Your task to perform on an android device: remove spam from my inbox in the gmail app Image 0: 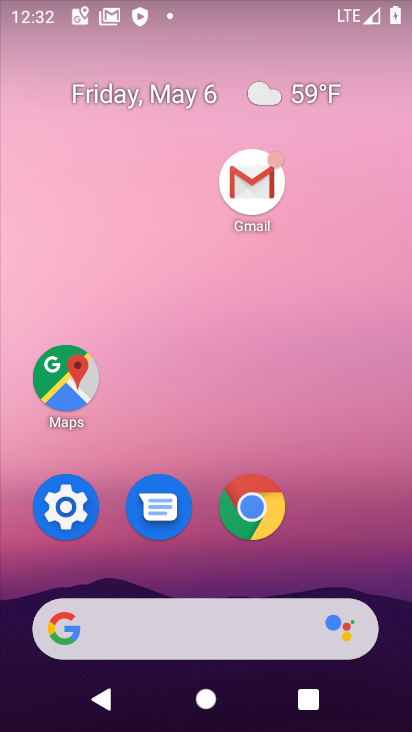
Step 0: click (257, 186)
Your task to perform on an android device: remove spam from my inbox in the gmail app Image 1: 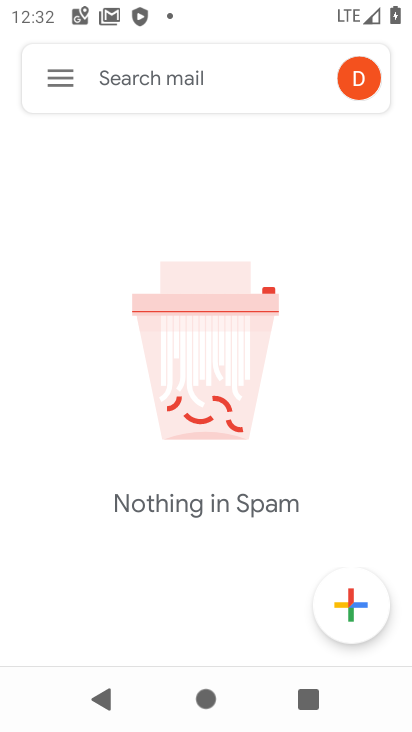
Step 1: click (63, 79)
Your task to perform on an android device: remove spam from my inbox in the gmail app Image 2: 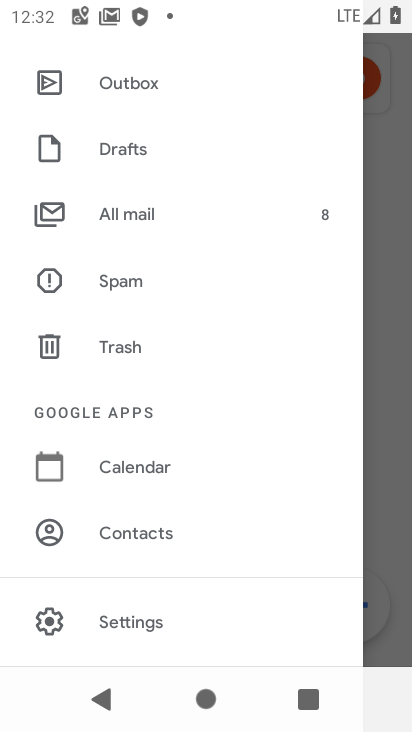
Step 2: click (117, 274)
Your task to perform on an android device: remove spam from my inbox in the gmail app Image 3: 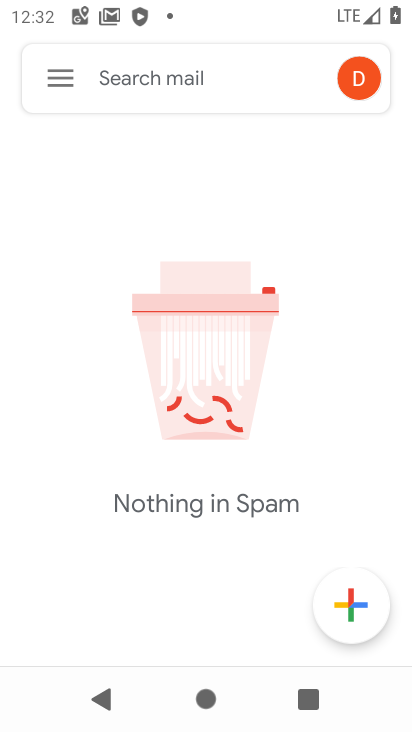
Step 3: task complete